Your task to perform on an android device: Open location settings Image 0: 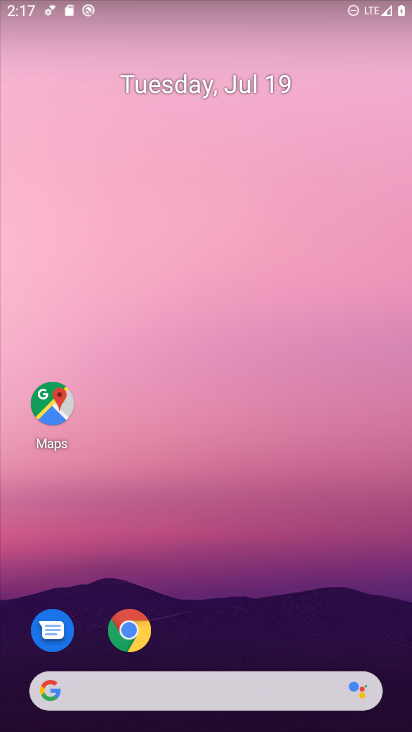
Step 0: drag from (353, 624) to (334, 242)
Your task to perform on an android device: Open location settings Image 1: 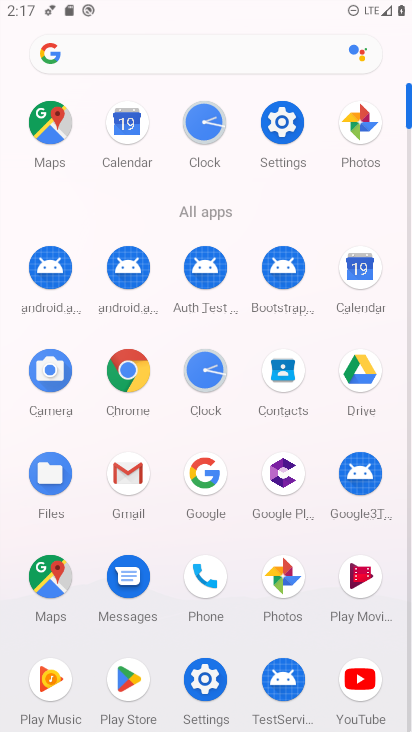
Step 1: click (208, 682)
Your task to perform on an android device: Open location settings Image 2: 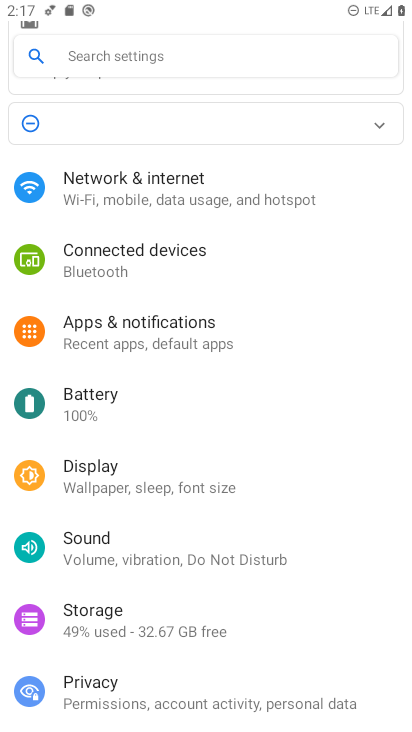
Step 2: drag from (342, 596) to (343, 339)
Your task to perform on an android device: Open location settings Image 3: 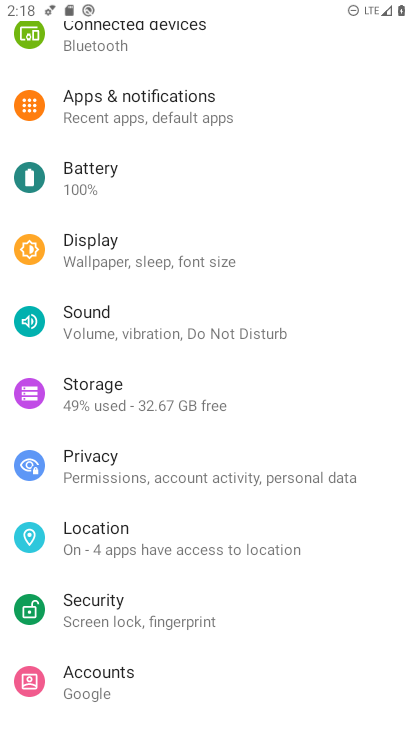
Step 3: click (107, 531)
Your task to perform on an android device: Open location settings Image 4: 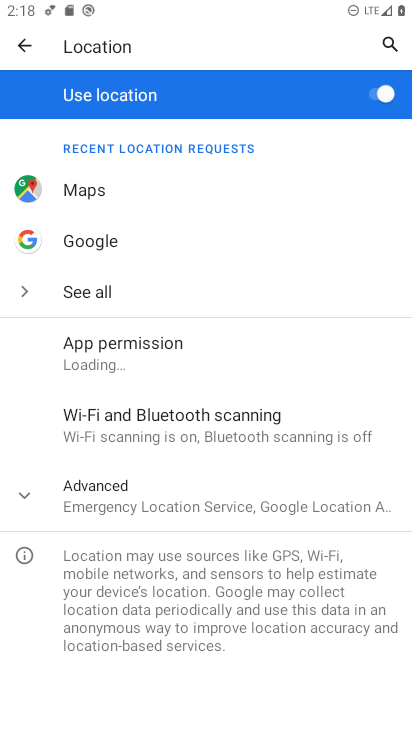
Step 4: click (23, 499)
Your task to perform on an android device: Open location settings Image 5: 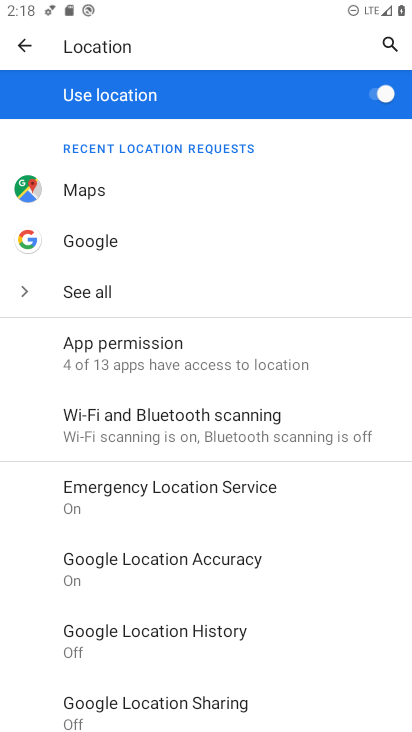
Step 5: task complete